Your task to perform on an android device: open chrome and create a bookmark for the current page Image 0: 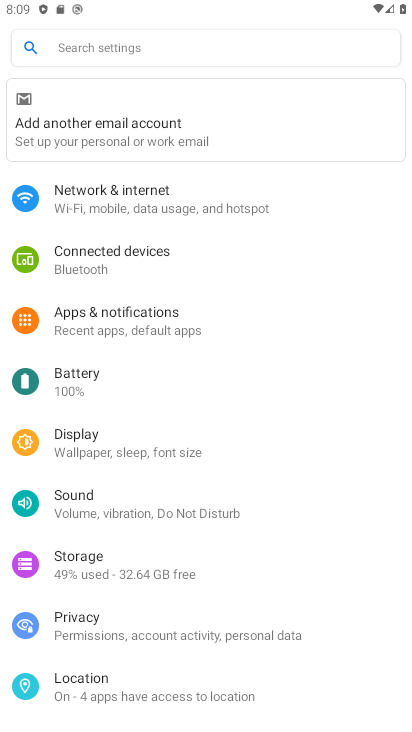
Step 0: press home button
Your task to perform on an android device: open chrome and create a bookmark for the current page Image 1: 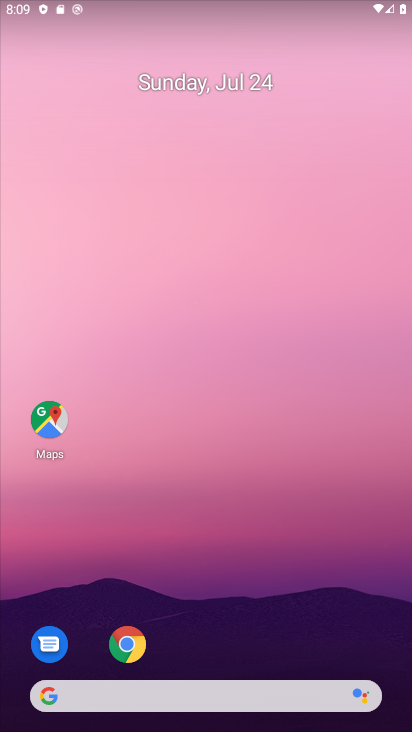
Step 1: click (122, 641)
Your task to perform on an android device: open chrome and create a bookmark for the current page Image 2: 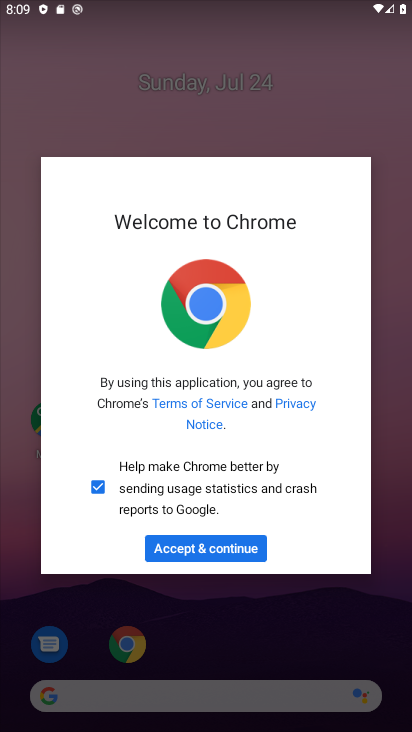
Step 2: click (208, 552)
Your task to perform on an android device: open chrome and create a bookmark for the current page Image 3: 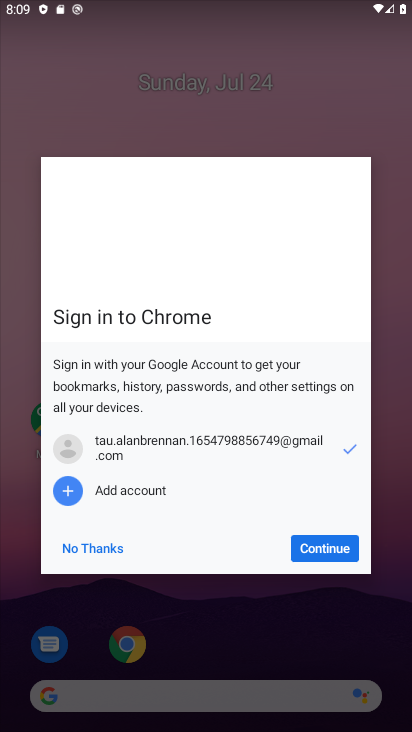
Step 3: click (103, 564)
Your task to perform on an android device: open chrome and create a bookmark for the current page Image 4: 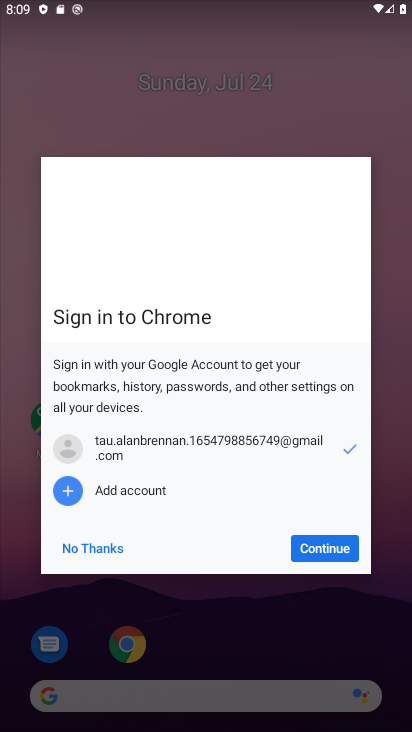
Step 4: click (107, 552)
Your task to perform on an android device: open chrome and create a bookmark for the current page Image 5: 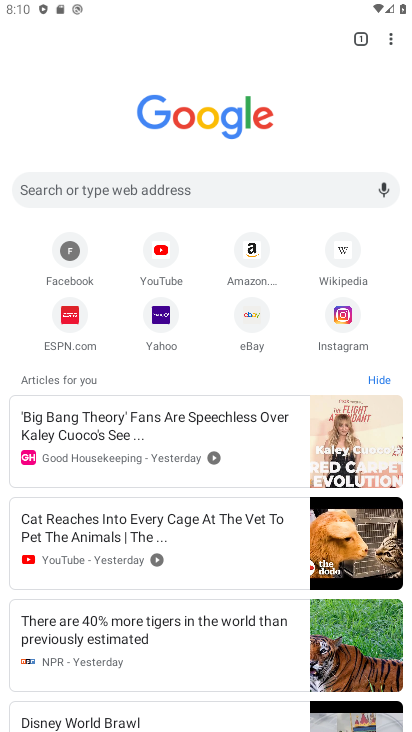
Step 5: click (391, 39)
Your task to perform on an android device: open chrome and create a bookmark for the current page Image 6: 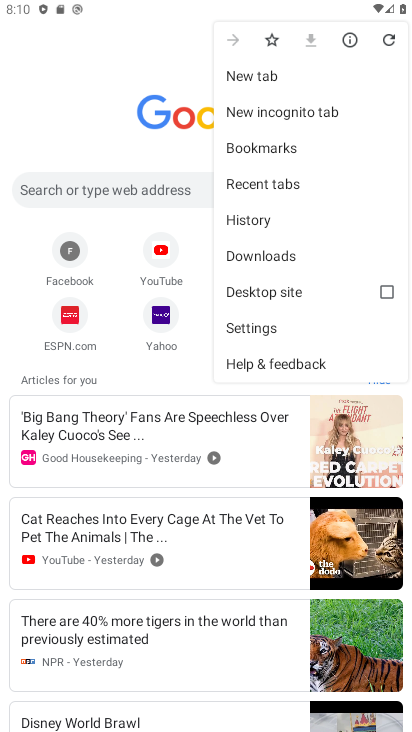
Step 6: click (268, 37)
Your task to perform on an android device: open chrome and create a bookmark for the current page Image 7: 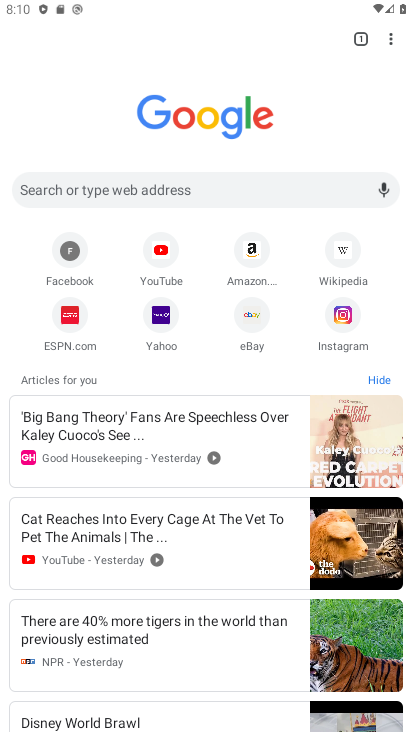
Step 7: task complete